Your task to perform on an android device: Open the Play Movies app and select the watchlist tab. Image 0: 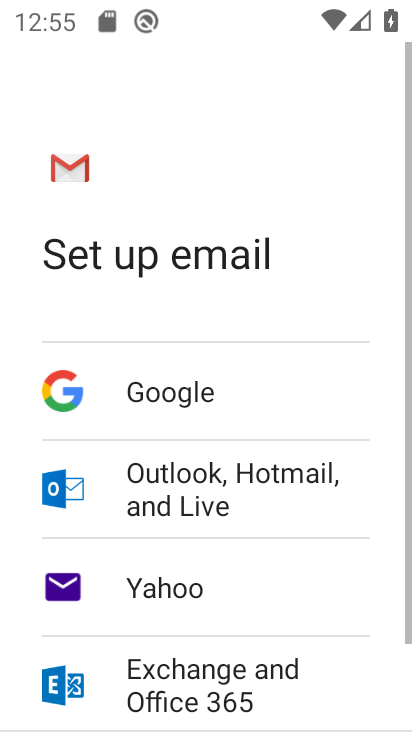
Step 0: press back button
Your task to perform on an android device: Open the Play Movies app and select the watchlist tab. Image 1: 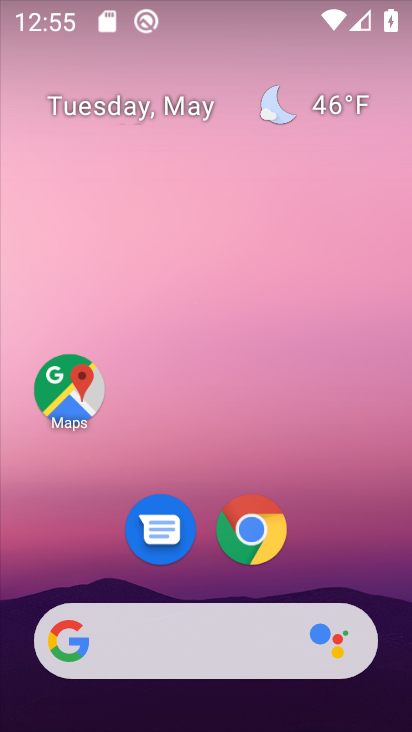
Step 1: drag from (154, 596) to (243, 152)
Your task to perform on an android device: Open the Play Movies app and select the watchlist tab. Image 2: 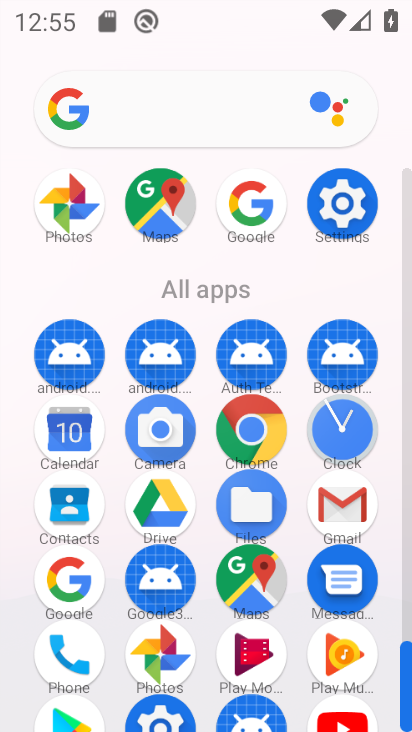
Step 2: drag from (149, 608) to (236, 368)
Your task to perform on an android device: Open the Play Movies app and select the watchlist tab. Image 3: 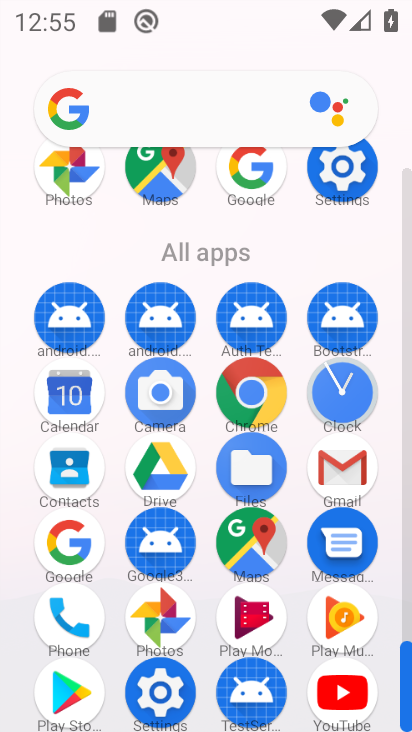
Step 3: click (256, 600)
Your task to perform on an android device: Open the Play Movies app and select the watchlist tab. Image 4: 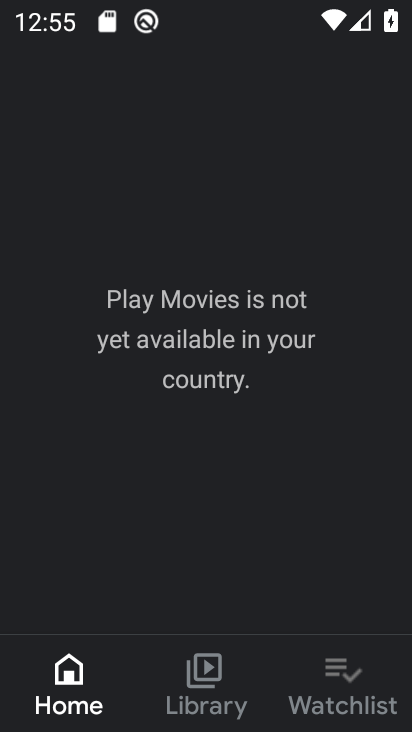
Step 4: click (358, 672)
Your task to perform on an android device: Open the Play Movies app and select the watchlist tab. Image 5: 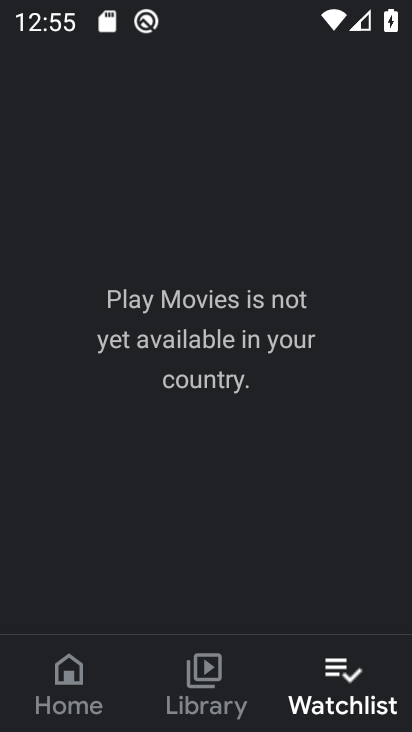
Step 5: task complete